Your task to perform on an android device: turn on showing notifications on the lock screen Image 0: 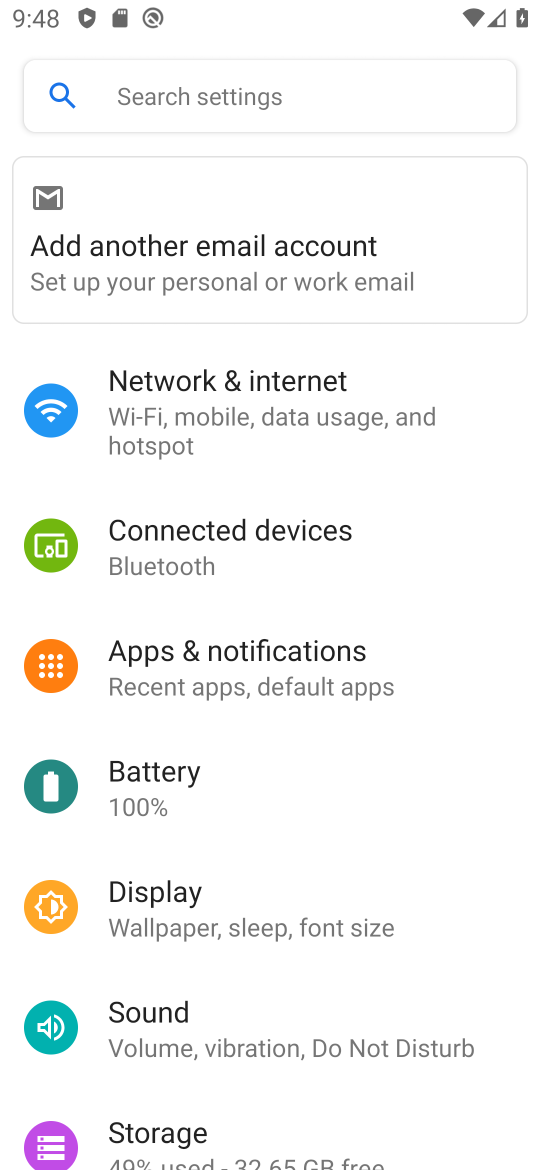
Step 0: drag from (237, 928) to (175, 481)
Your task to perform on an android device: turn on showing notifications on the lock screen Image 1: 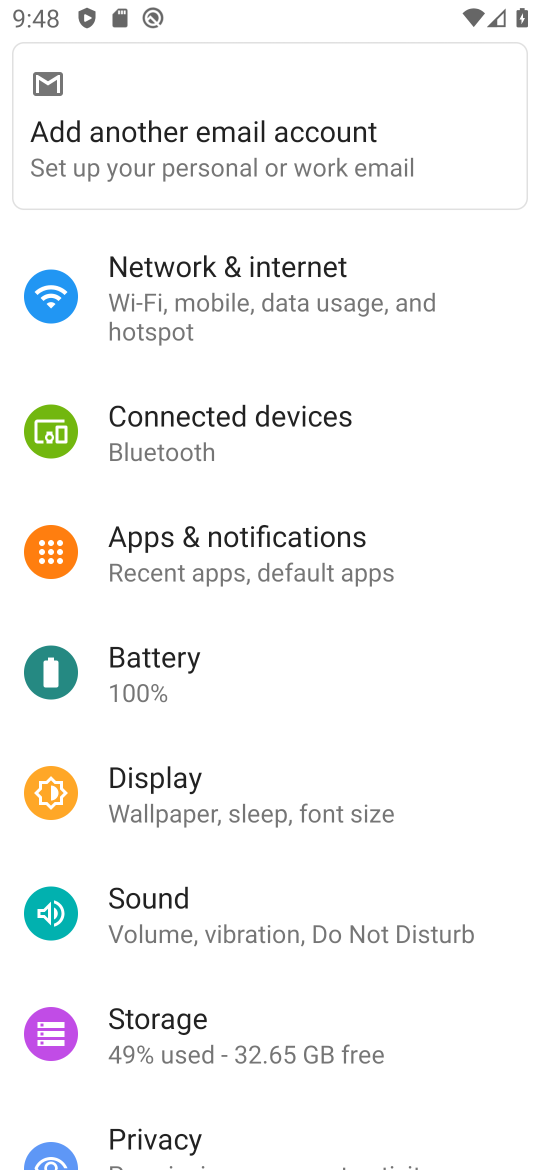
Step 1: click (119, 1149)
Your task to perform on an android device: turn on showing notifications on the lock screen Image 2: 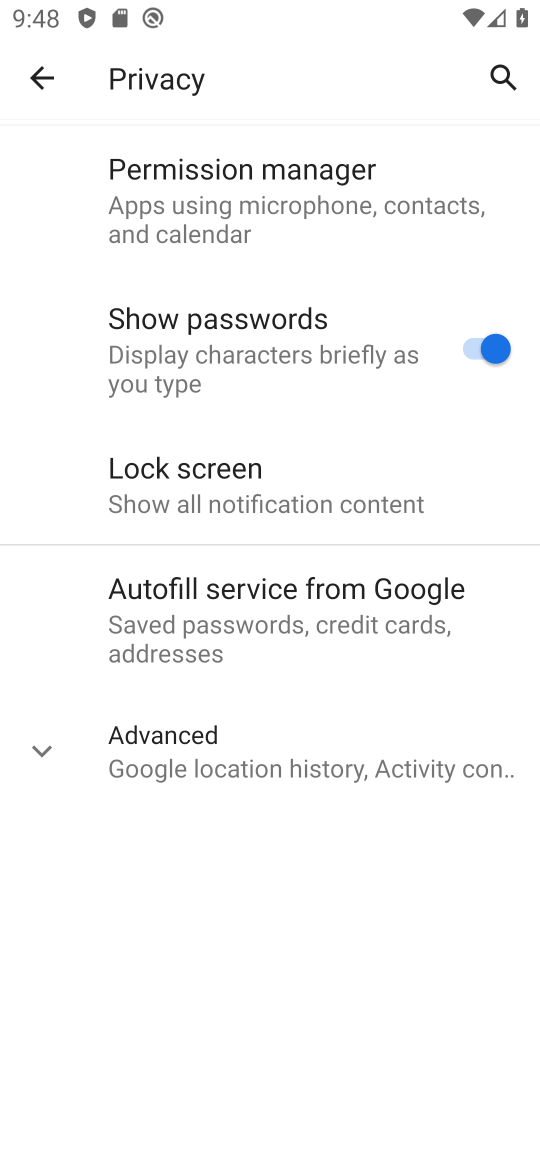
Step 2: click (171, 489)
Your task to perform on an android device: turn on showing notifications on the lock screen Image 3: 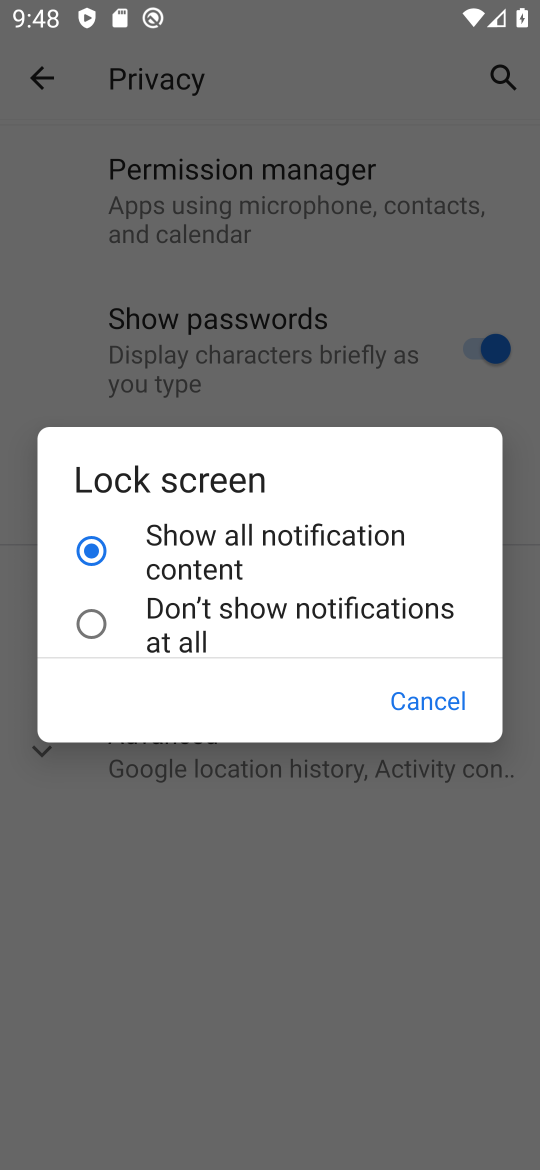
Step 3: click (439, 700)
Your task to perform on an android device: turn on showing notifications on the lock screen Image 4: 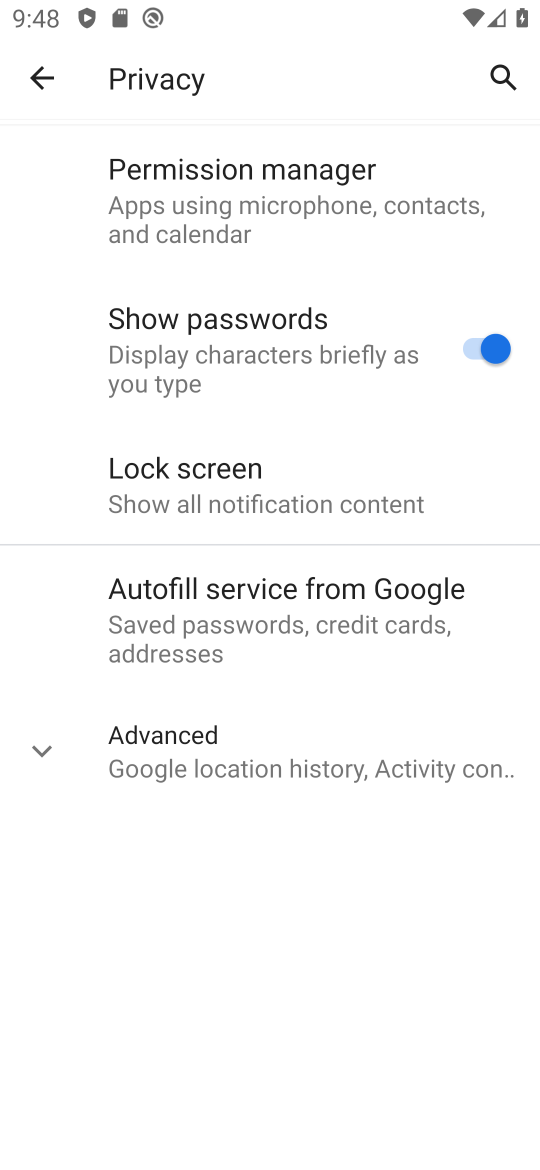
Step 4: task complete